Your task to perform on an android device: turn off wifi Image 0: 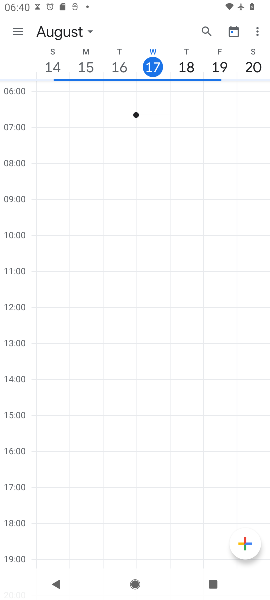
Step 0: press home button
Your task to perform on an android device: turn off wifi Image 1: 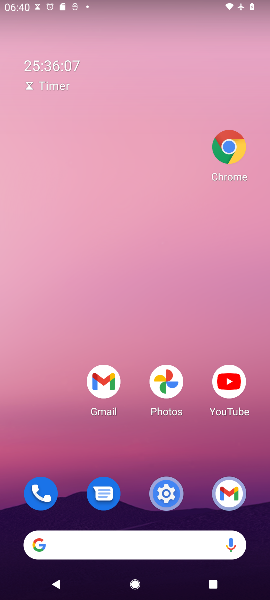
Step 1: click (181, 491)
Your task to perform on an android device: turn off wifi Image 2: 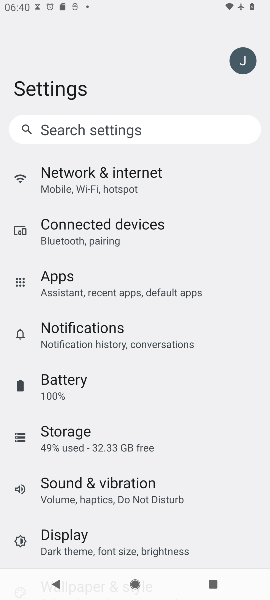
Step 2: click (105, 173)
Your task to perform on an android device: turn off wifi Image 3: 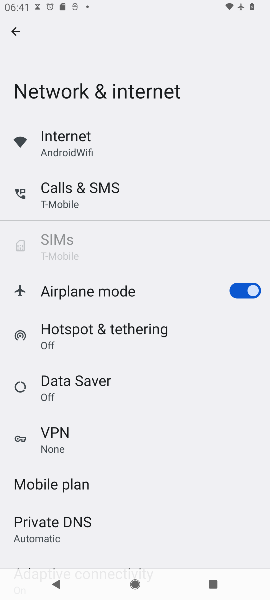
Step 3: click (69, 145)
Your task to perform on an android device: turn off wifi Image 4: 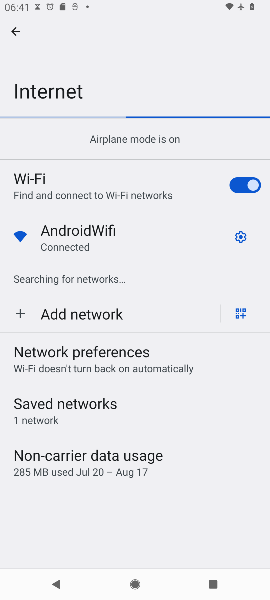
Step 4: click (253, 186)
Your task to perform on an android device: turn off wifi Image 5: 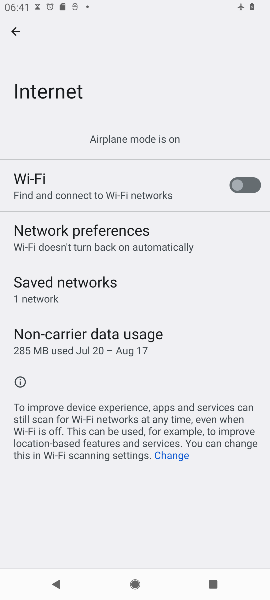
Step 5: task complete